Your task to perform on an android device: check battery use Image 0: 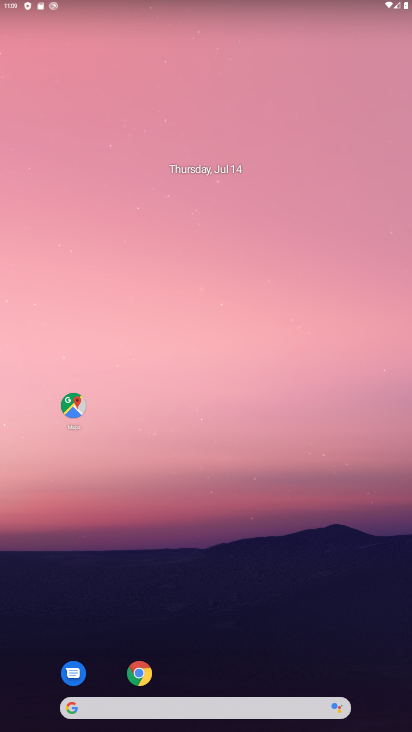
Step 0: drag from (245, 625) to (231, 12)
Your task to perform on an android device: check battery use Image 1: 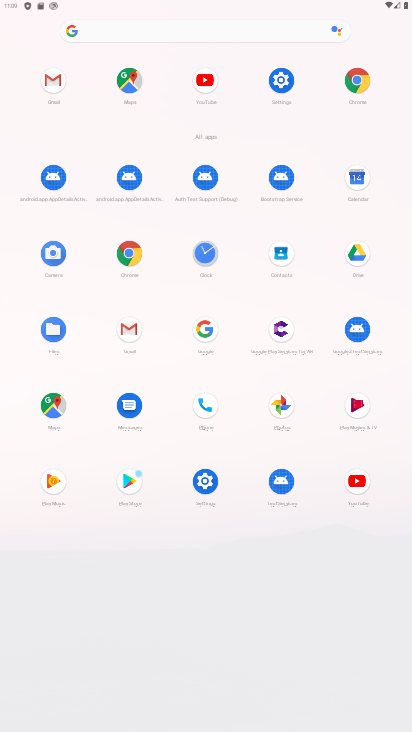
Step 1: click (205, 477)
Your task to perform on an android device: check battery use Image 2: 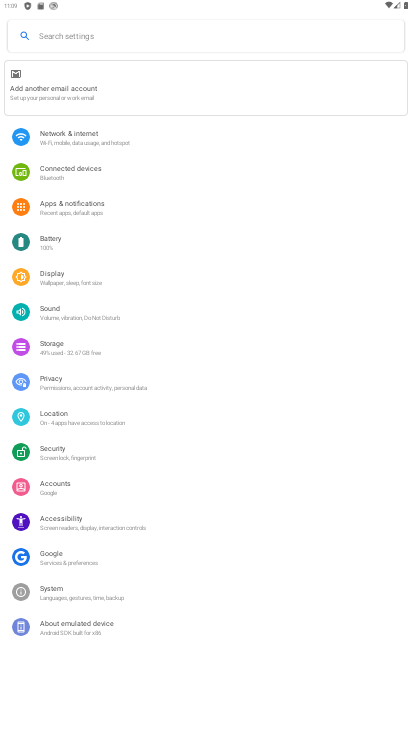
Step 2: click (45, 244)
Your task to perform on an android device: check battery use Image 3: 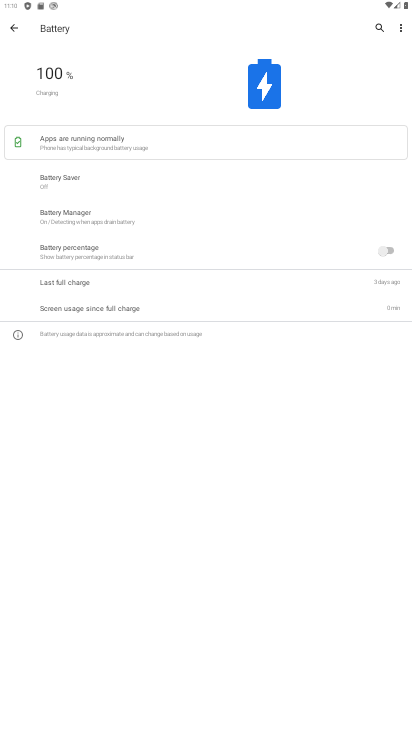
Step 3: click (402, 28)
Your task to perform on an android device: check battery use Image 4: 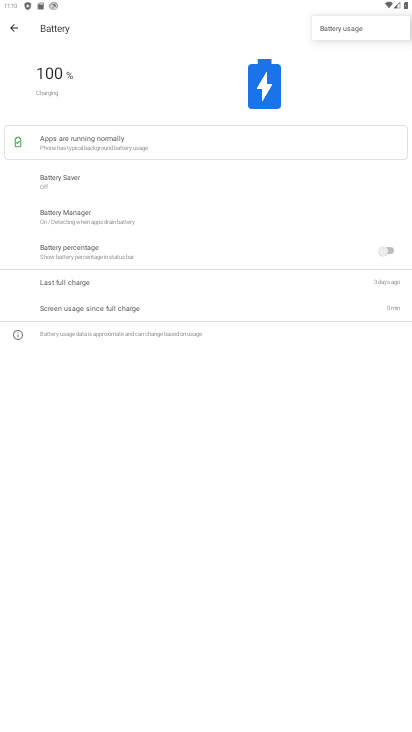
Step 4: click (357, 21)
Your task to perform on an android device: check battery use Image 5: 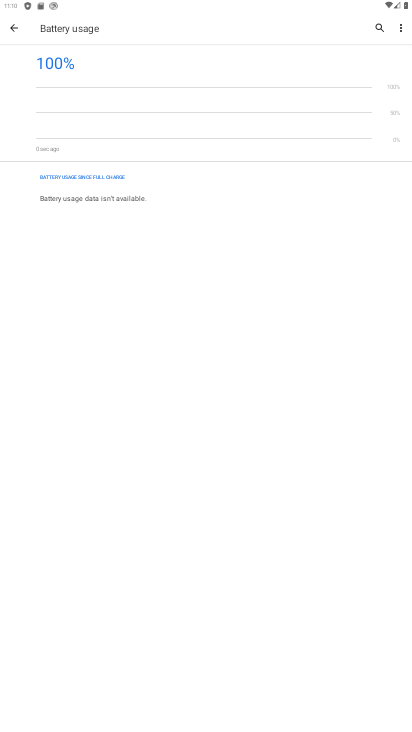
Step 5: task complete